Your task to perform on an android device: add a contact in the contacts app Image 0: 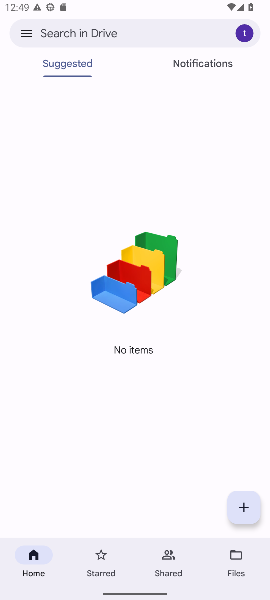
Step 0: press home button
Your task to perform on an android device: add a contact in the contacts app Image 1: 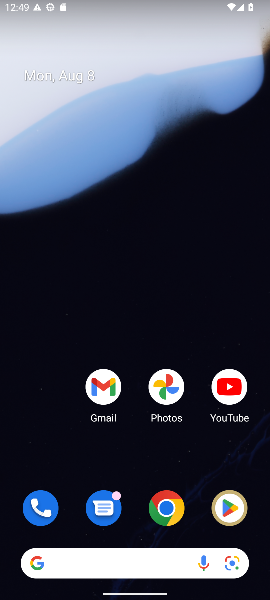
Step 1: click (165, 503)
Your task to perform on an android device: add a contact in the contacts app Image 2: 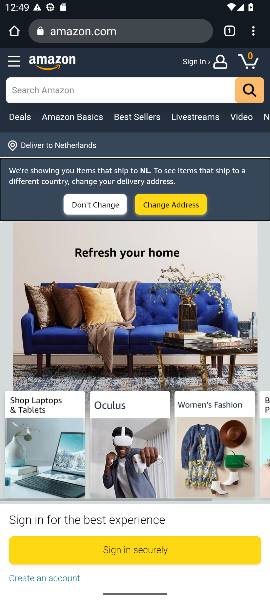
Step 2: click (254, 37)
Your task to perform on an android device: add a contact in the contacts app Image 3: 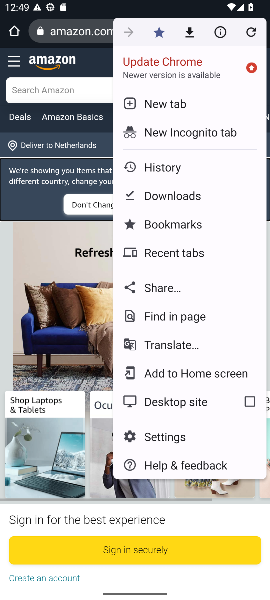
Step 3: click (165, 226)
Your task to perform on an android device: add a contact in the contacts app Image 4: 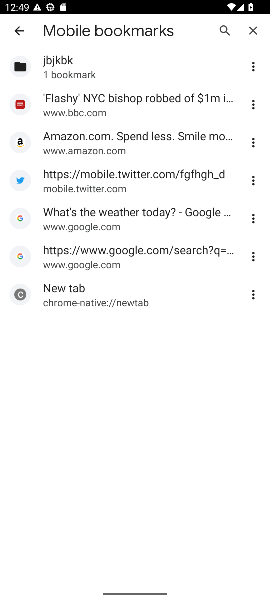
Step 4: task complete